Your task to perform on an android device: Show me popular games on the Play Store Image 0: 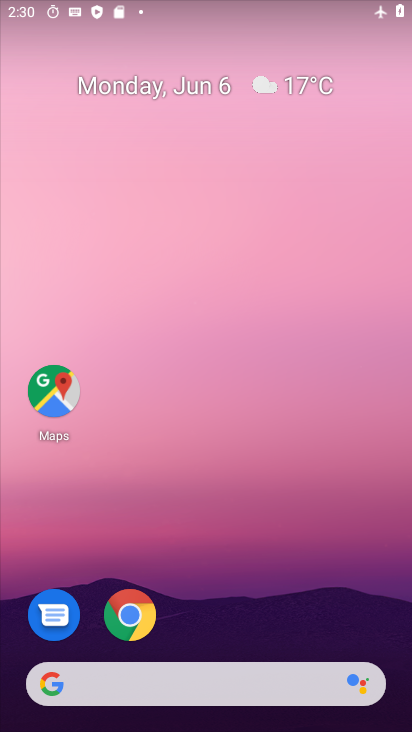
Step 0: drag from (234, 627) to (331, 227)
Your task to perform on an android device: Show me popular games on the Play Store Image 1: 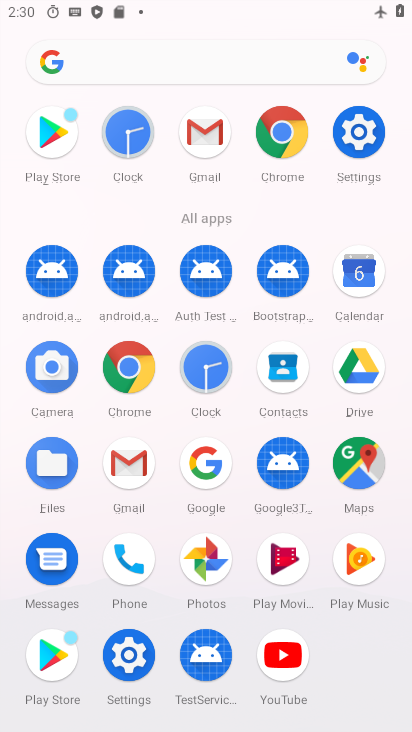
Step 1: click (44, 657)
Your task to perform on an android device: Show me popular games on the Play Store Image 2: 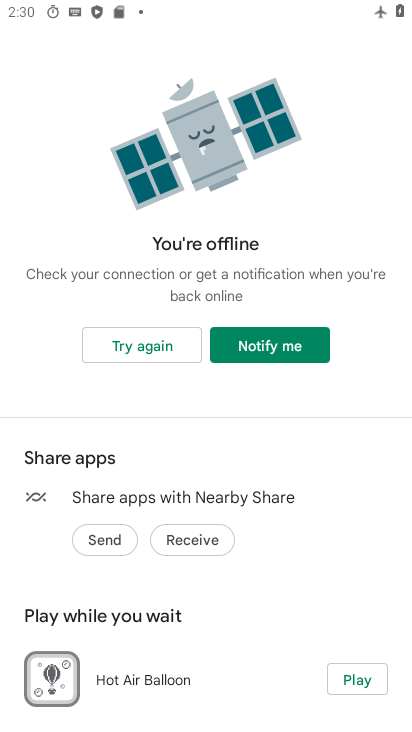
Step 2: click (144, 342)
Your task to perform on an android device: Show me popular games on the Play Store Image 3: 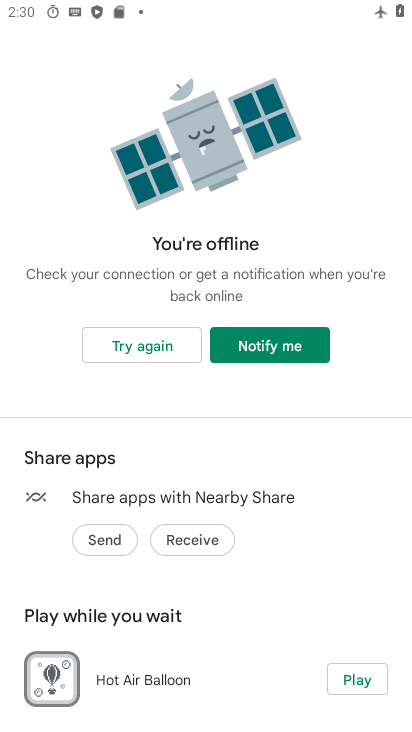
Step 3: click (144, 342)
Your task to perform on an android device: Show me popular games on the Play Store Image 4: 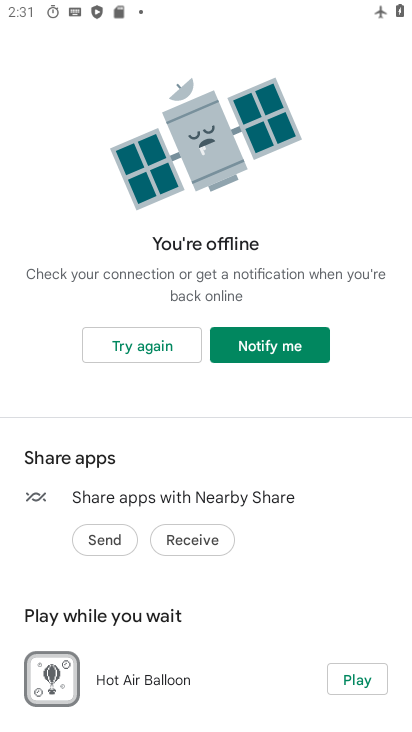
Step 4: click (144, 342)
Your task to perform on an android device: Show me popular games on the Play Store Image 5: 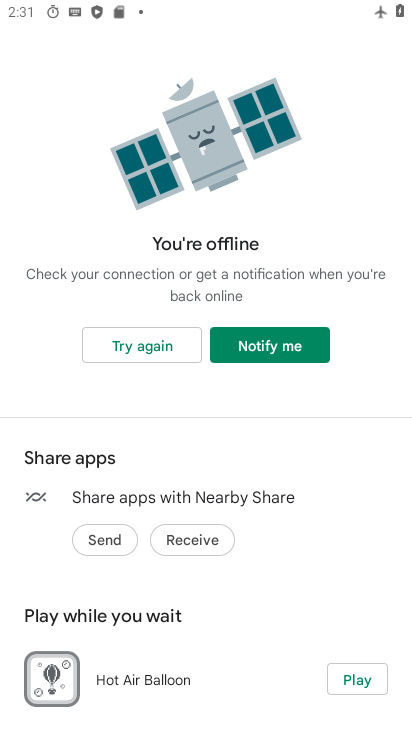
Step 5: click (154, 356)
Your task to perform on an android device: Show me popular games on the Play Store Image 6: 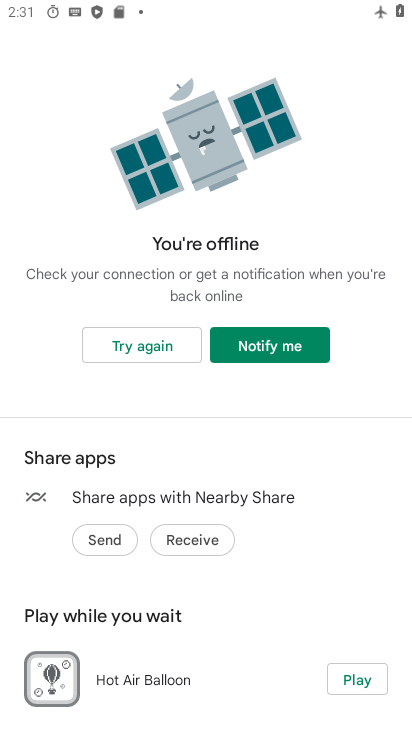
Step 6: task complete